Your task to perform on an android device: toggle data saver in the chrome app Image 0: 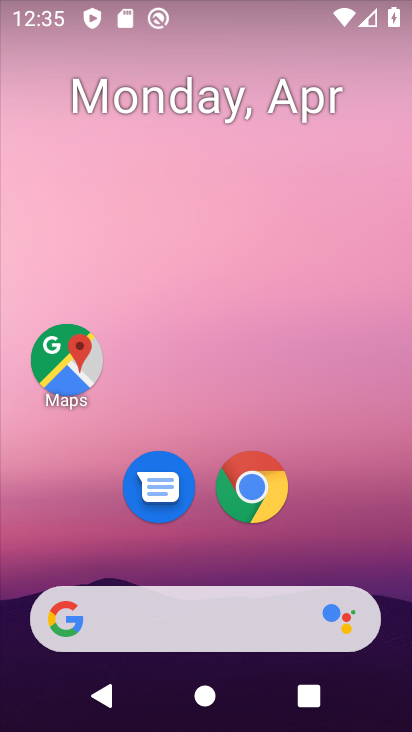
Step 0: drag from (397, 600) to (320, 61)
Your task to perform on an android device: toggle data saver in the chrome app Image 1: 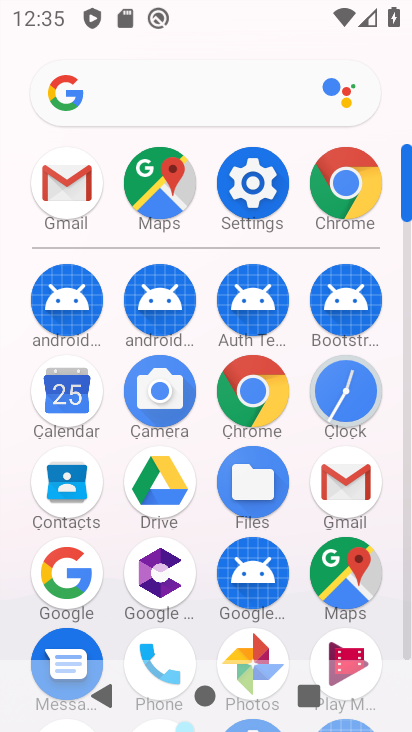
Step 1: click (236, 411)
Your task to perform on an android device: toggle data saver in the chrome app Image 2: 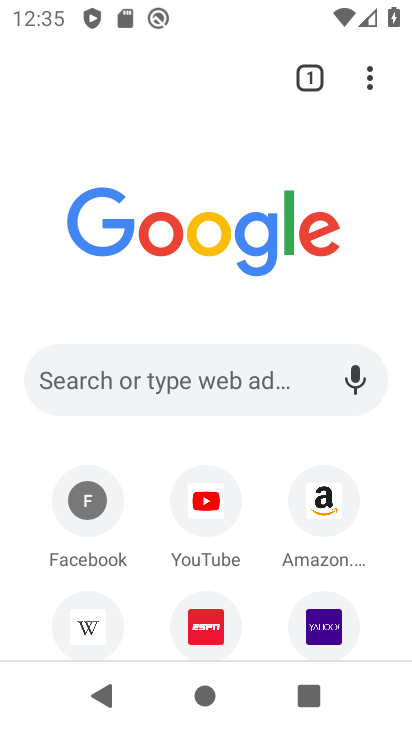
Step 2: click (370, 74)
Your task to perform on an android device: toggle data saver in the chrome app Image 3: 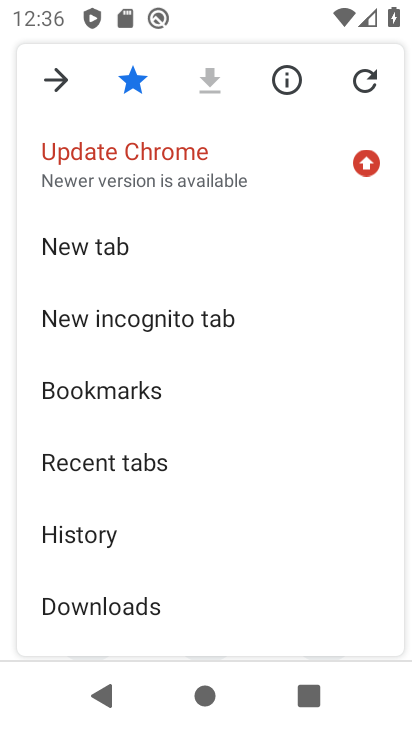
Step 3: drag from (145, 559) to (251, 222)
Your task to perform on an android device: toggle data saver in the chrome app Image 4: 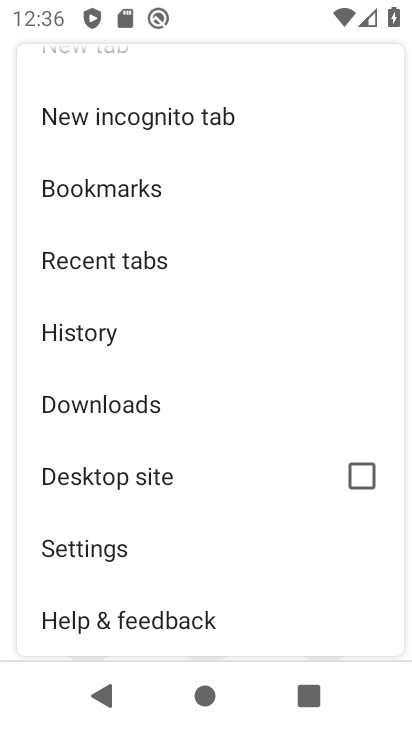
Step 4: click (134, 560)
Your task to perform on an android device: toggle data saver in the chrome app Image 5: 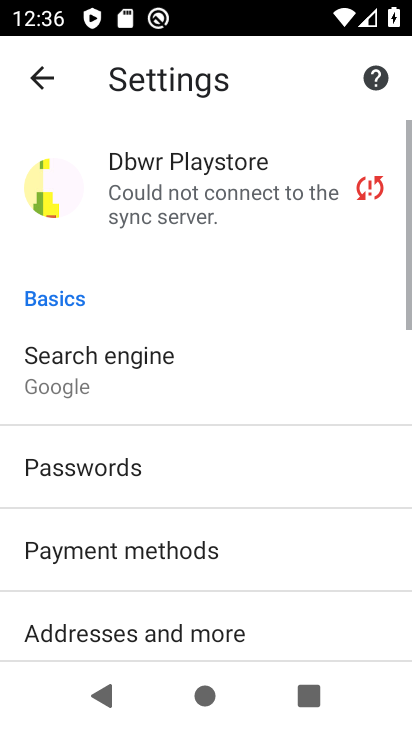
Step 5: drag from (134, 560) to (224, 118)
Your task to perform on an android device: toggle data saver in the chrome app Image 6: 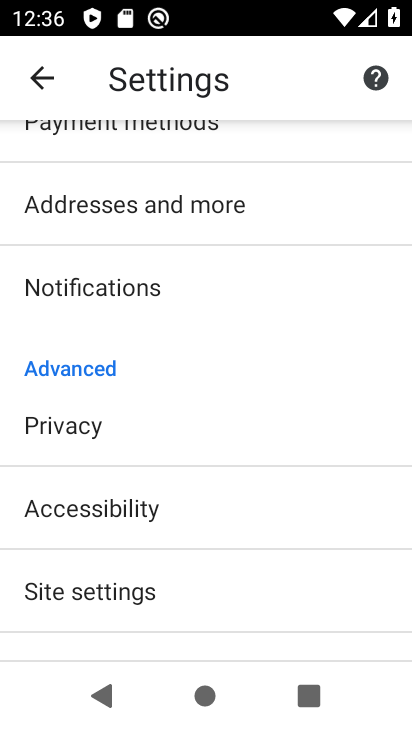
Step 6: drag from (179, 605) to (265, 179)
Your task to perform on an android device: toggle data saver in the chrome app Image 7: 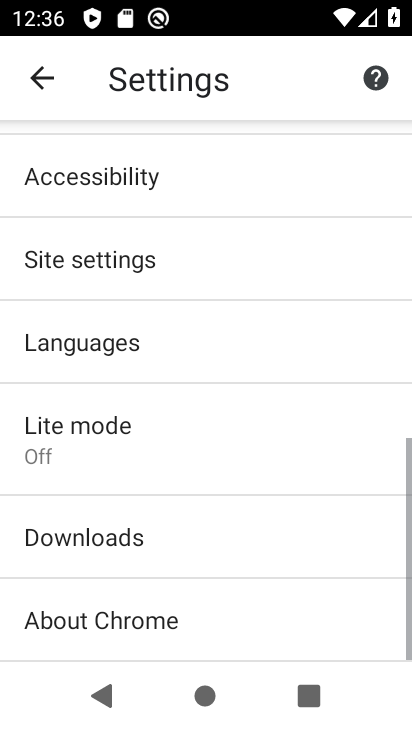
Step 7: click (153, 441)
Your task to perform on an android device: toggle data saver in the chrome app Image 8: 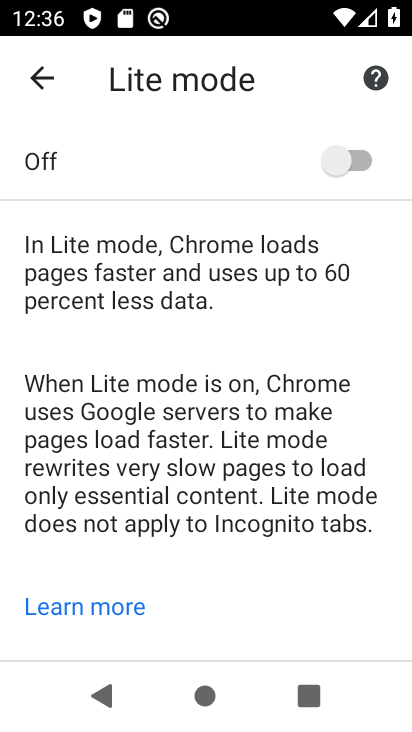
Step 8: click (337, 180)
Your task to perform on an android device: toggle data saver in the chrome app Image 9: 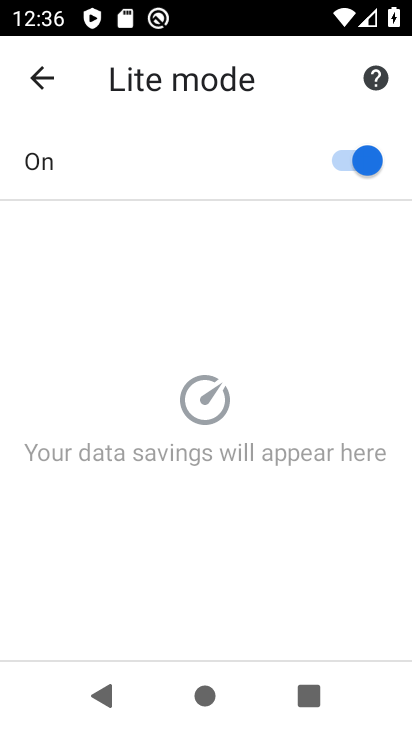
Step 9: task complete